Your task to perform on an android device: Go to eBay Image 0: 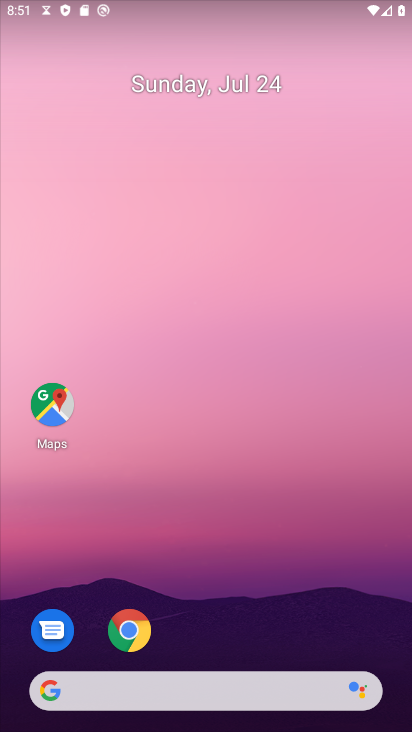
Step 0: drag from (206, 269) to (210, 117)
Your task to perform on an android device: Go to eBay Image 1: 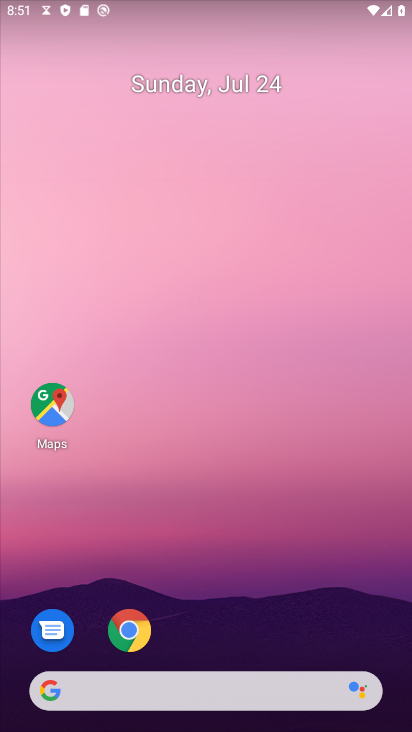
Step 1: drag from (227, 639) to (248, 1)
Your task to perform on an android device: Go to eBay Image 2: 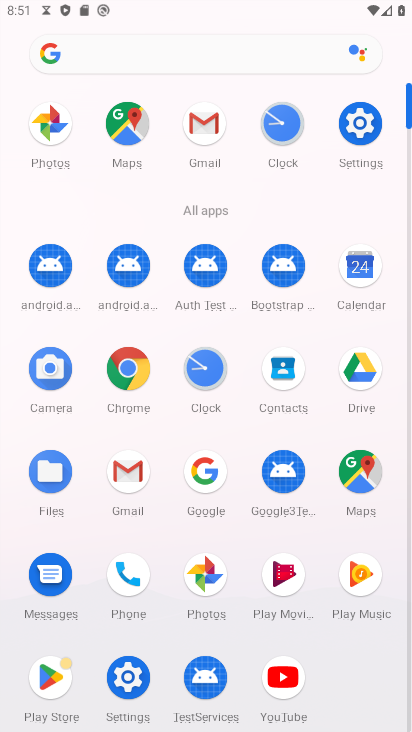
Step 2: click (141, 388)
Your task to perform on an android device: Go to eBay Image 3: 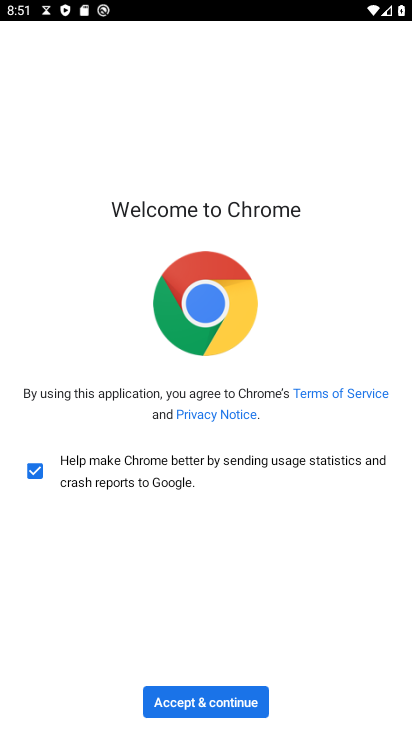
Step 3: click (235, 700)
Your task to perform on an android device: Go to eBay Image 4: 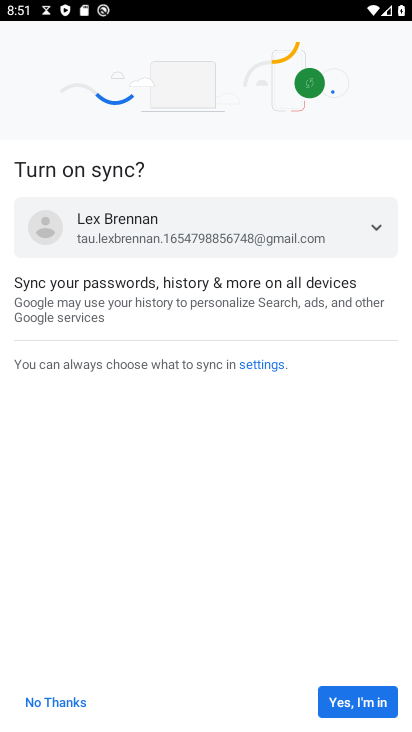
Step 4: click (381, 691)
Your task to perform on an android device: Go to eBay Image 5: 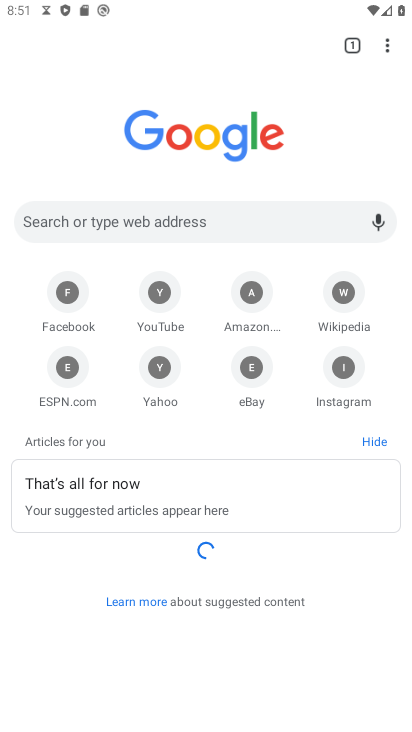
Step 5: click (242, 383)
Your task to perform on an android device: Go to eBay Image 6: 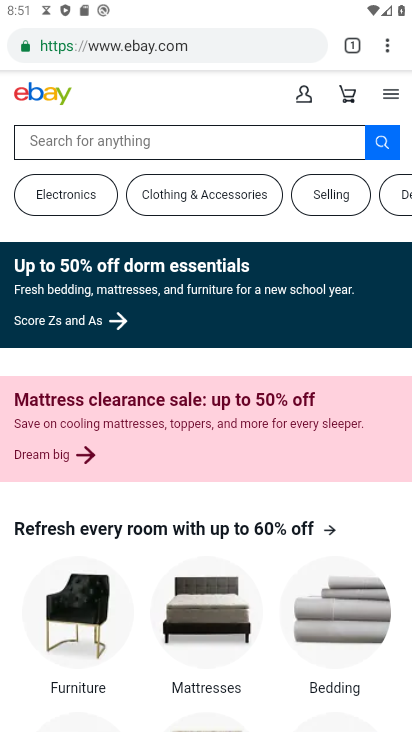
Step 6: task complete